Your task to perform on an android device: Show me popular games on the Play Store Image 0: 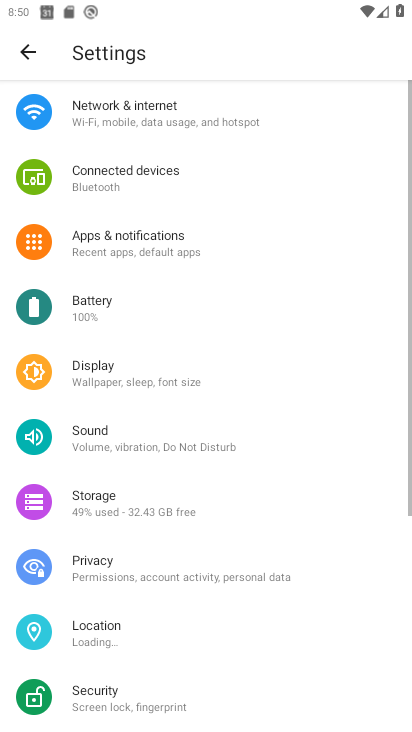
Step 0: drag from (196, 619) to (262, 206)
Your task to perform on an android device: Show me popular games on the Play Store Image 1: 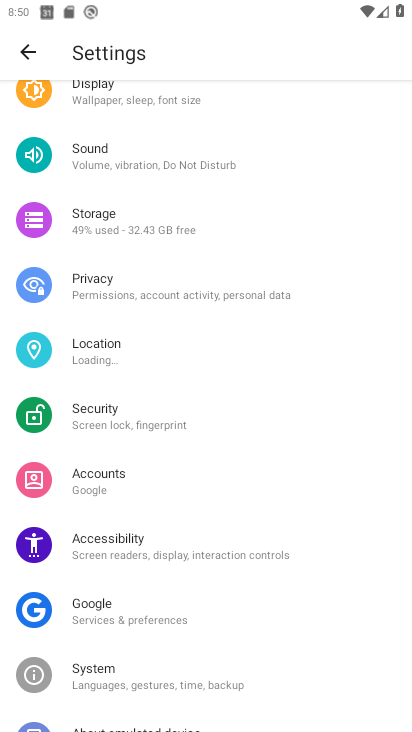
Step 1: drag from (254, 187) to (346, 716)
Your task to perform on an android device: Show me popular games on the Play Store Image 2: 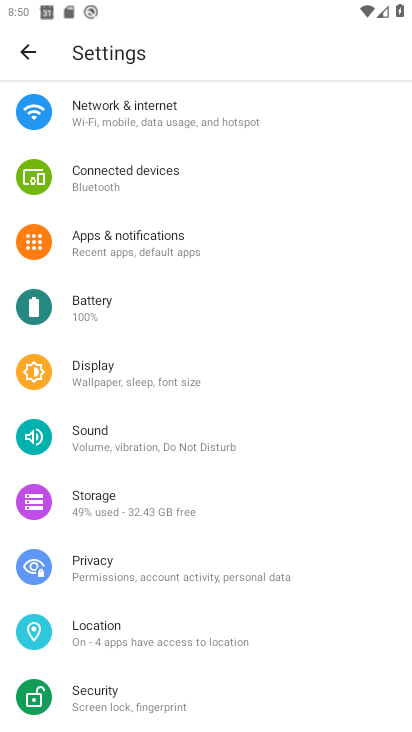
Step 2: drag from (154, 211) to (259, 641)
Your task to perform on an android device: Show me popular games on the Play Store Image 3: 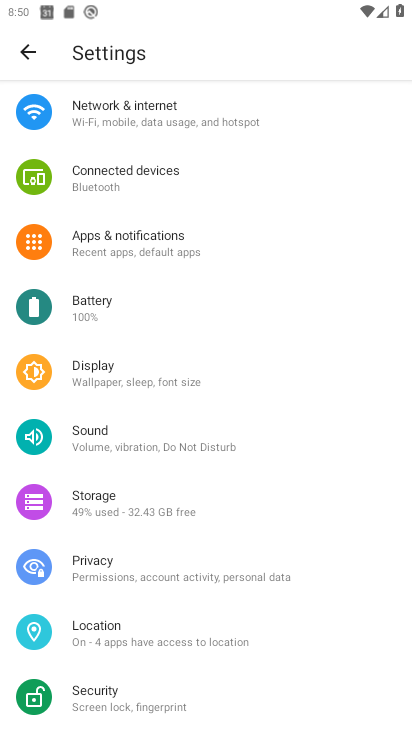
Step 3: click (25, 46)
Your task to perform on an android device: Show me popular games on the Play Store Image 4: 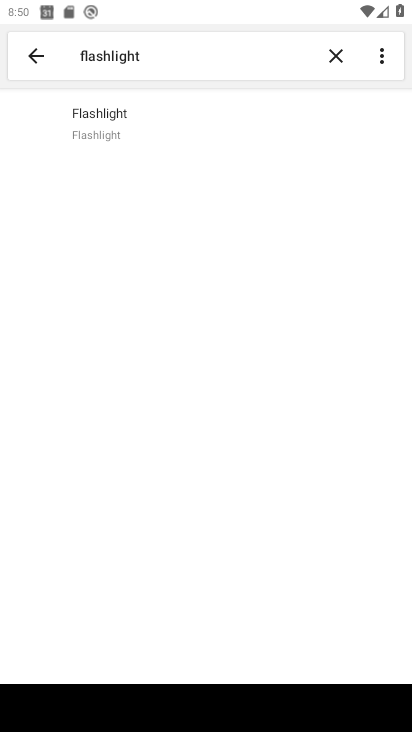
Step 4: click (130, 115)
Your task to perform on an android device: Show me popular games on the Play Store Image 5: 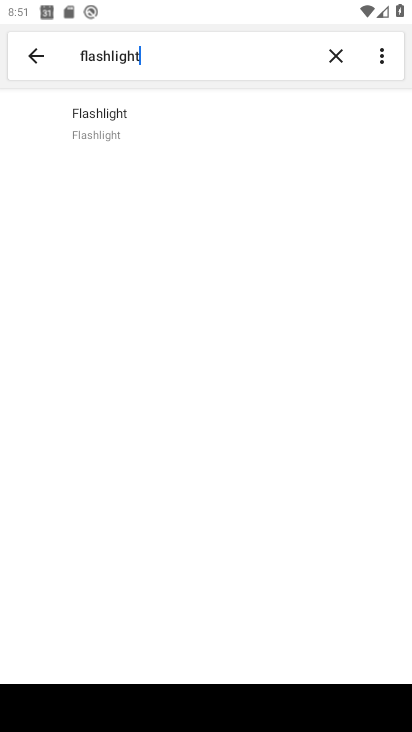
Step 5: press home button
Your task to perform on an android device: Show me popular games on the Play Store Image 6: 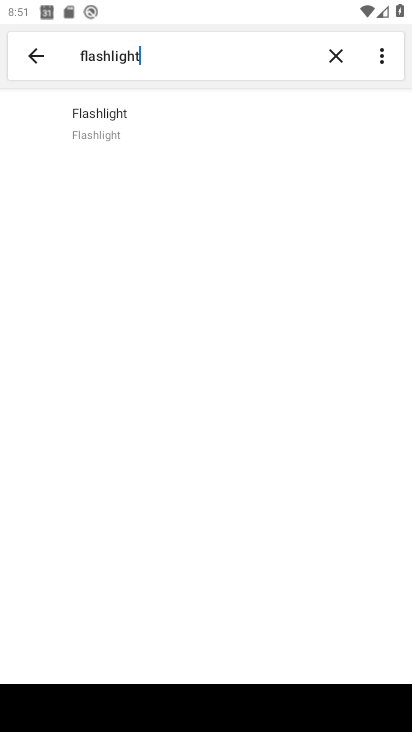
Step 6: press home button
Your task to perform on an android device: Show me popular games on the Play Store Image 7: 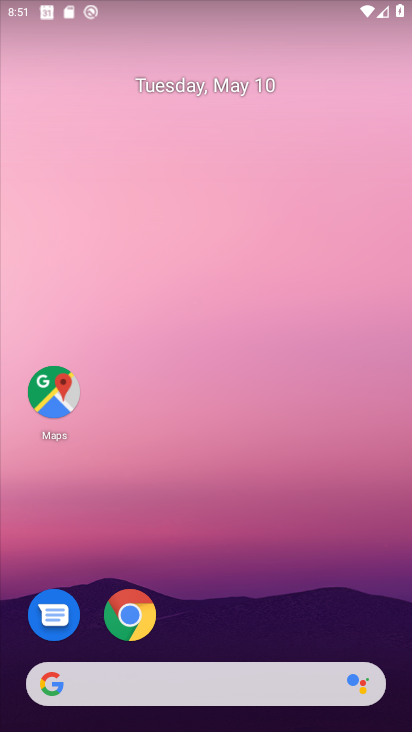
Step 7: drag from (168, 536) to (169, 140)
Your task to perform on an android device: Show me popular games on the Play Store Image 8: 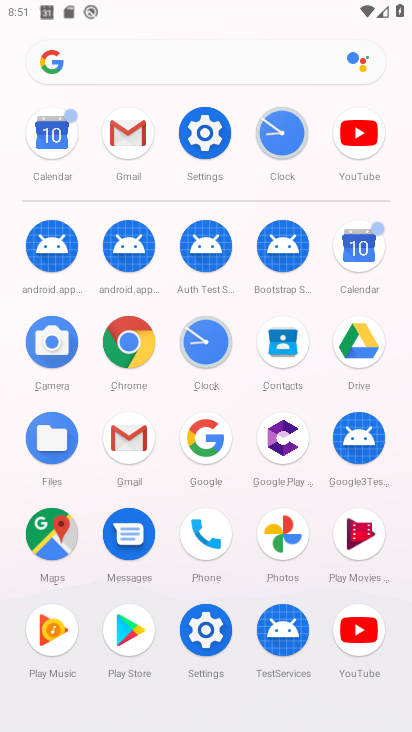
Step 8: click (113, 641)
Your task to perform on an android device: Show me popular games on the Play Store Image 9: 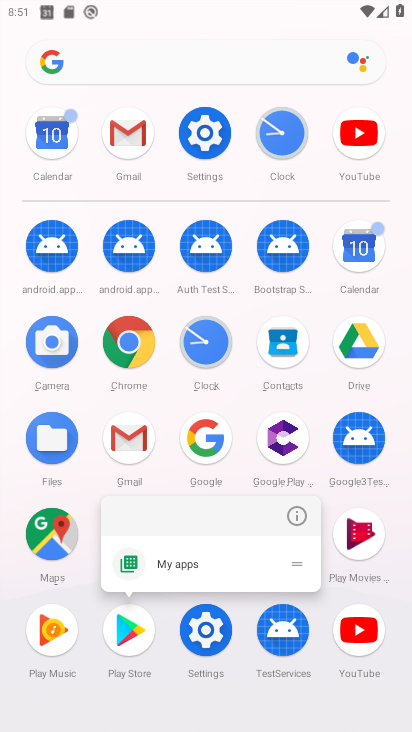
Step 9: click (296, 516)
Your task to perform on an android device: Show me popular games on the Play Store Image 10: 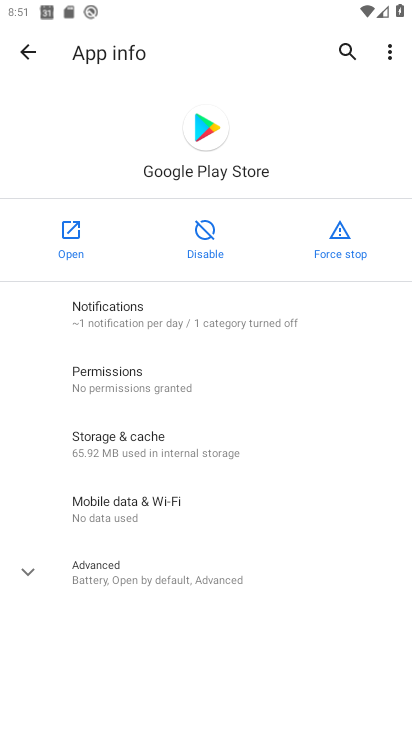
Step 10: click (69, 256)
Your task to perform on an android device: Show me popular games on the Play Store Image 11: 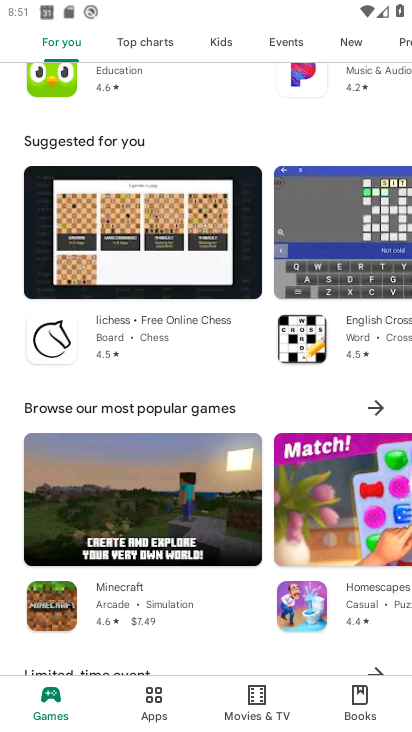
Step 11: click (372, 403)
Your task to perform on an android device: Show me popular games on the Play Store Image 12: 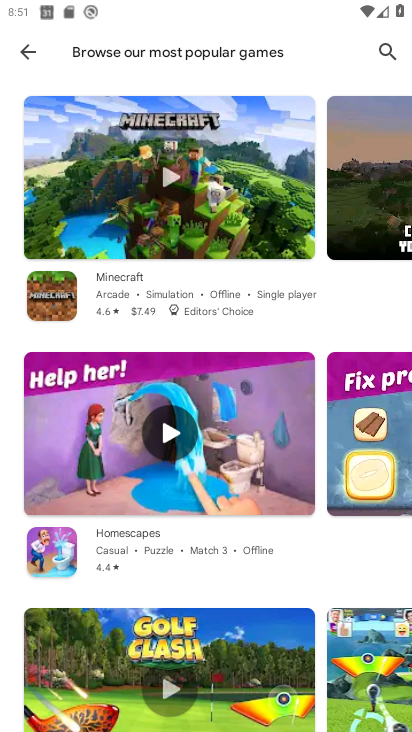
Step 12: task complete